Your task to perform on an android device: set default search engine in the chrome app Image 0: 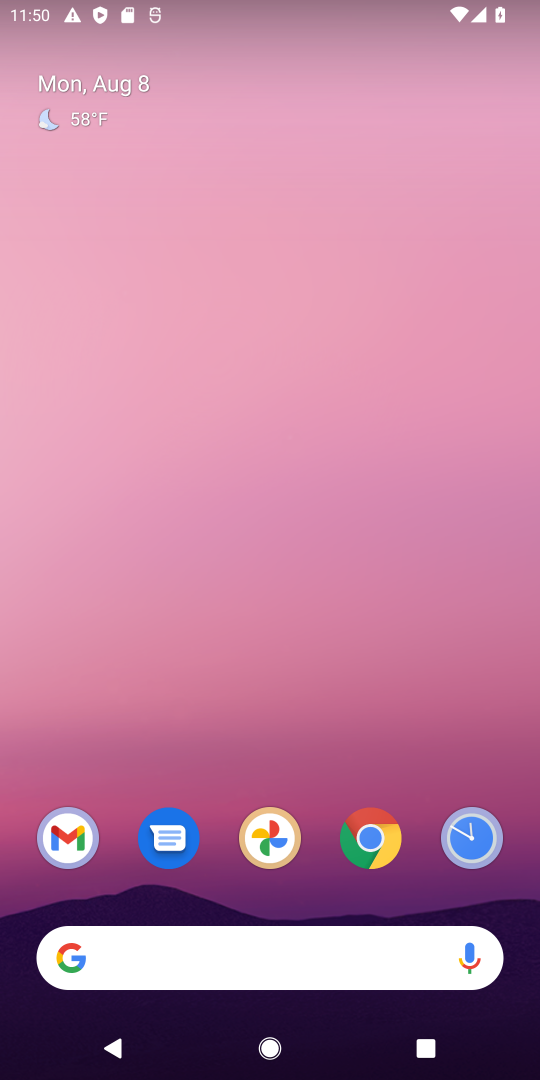
Step 0: press home button
Your task to perform on an android device: set default search engine in the chrome app Image 1: 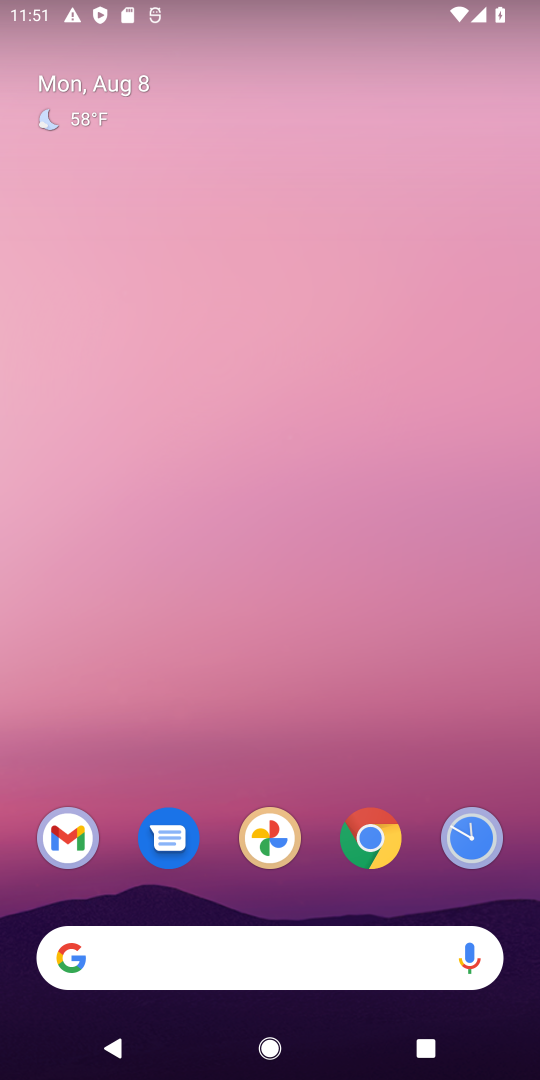
Step 1: click (369, 837)
Your task to perform on an android device: set default search engine in the chrome app Image 2: 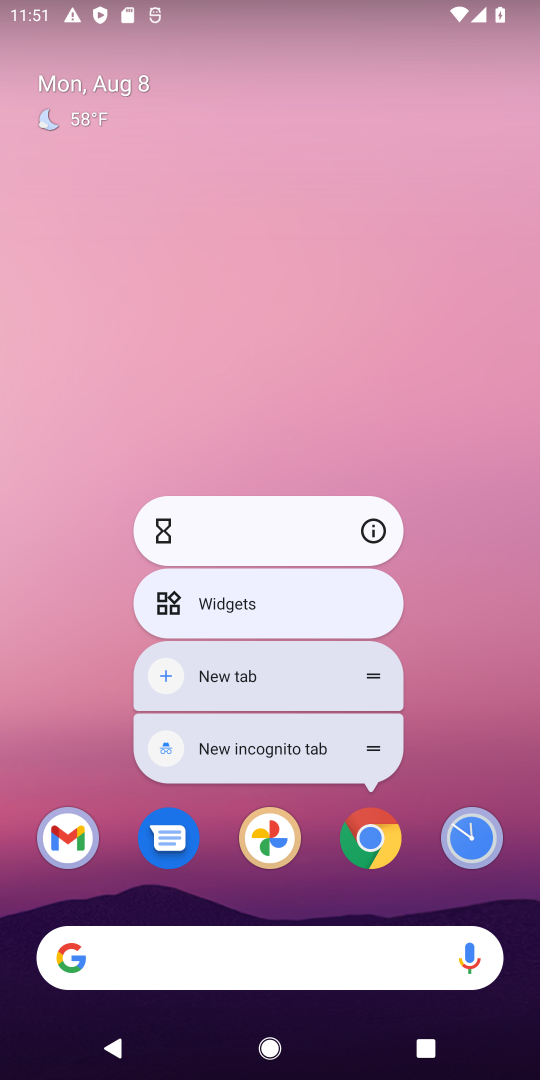
Step 2: click (369, 837)
Your task to perform on an android device: set default search engine in the chrome app Image 3: 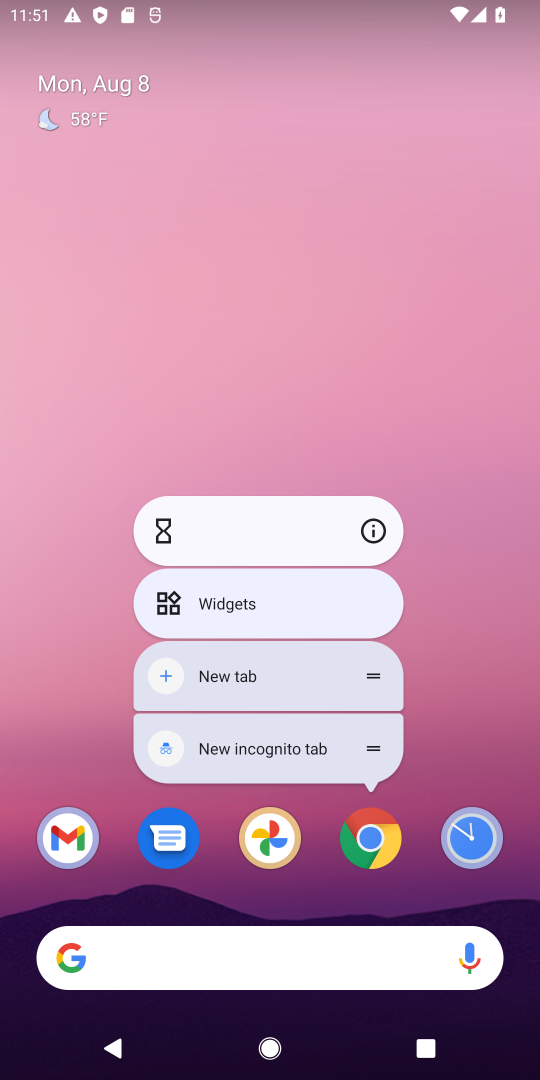
Step 3: click (369, 837)
Your task to perform on an android device: set default search engine in the chrome app Image 4: 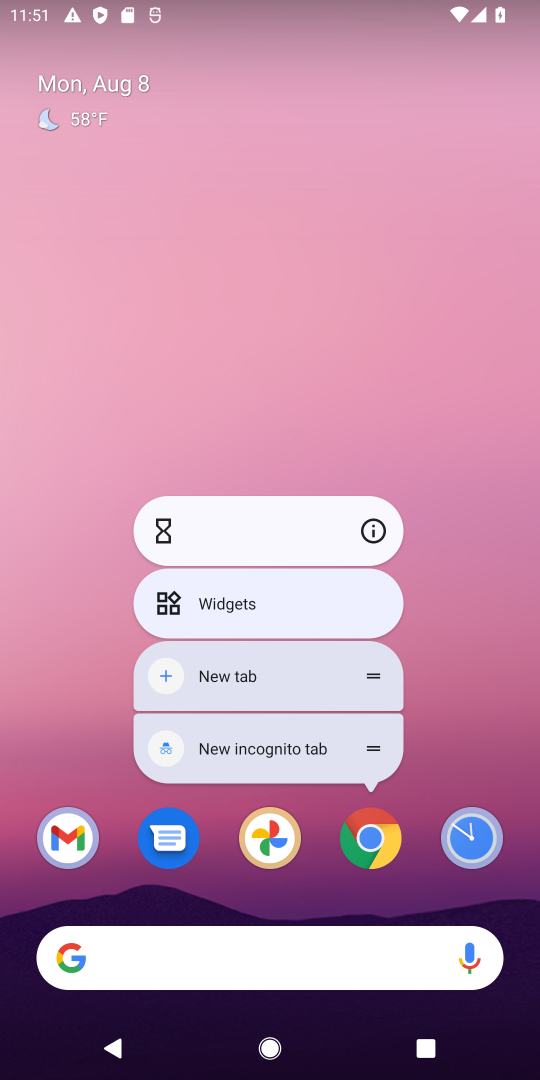
Step 4: click (369, 837)
Your task to perform on an android device: set default search engine in the chrome app Image 5: 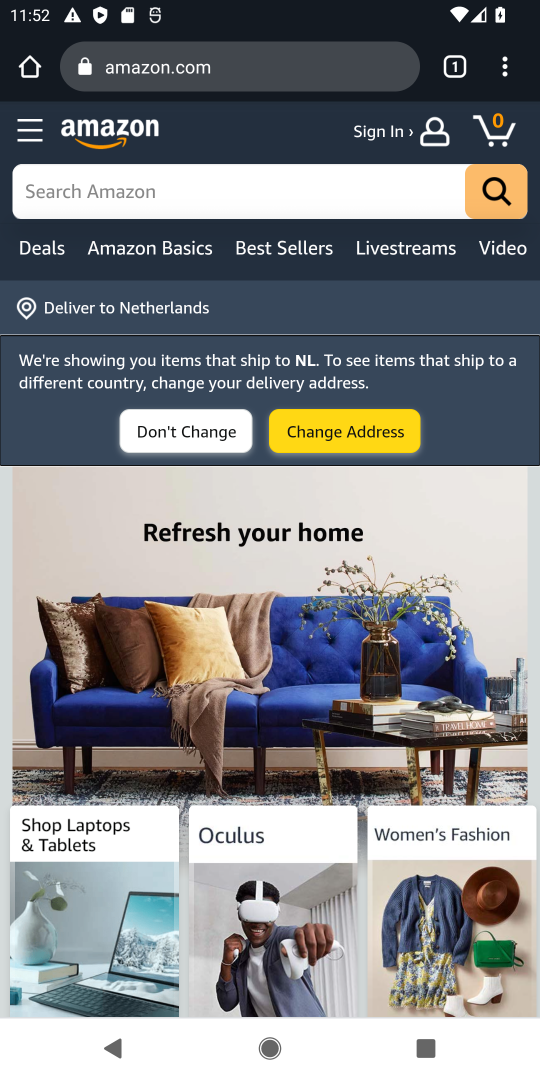
Step 5: drag from (506, 73) to (319, 851)
Your task to perform on an android device: set default search engine in the chrome app Image 6: 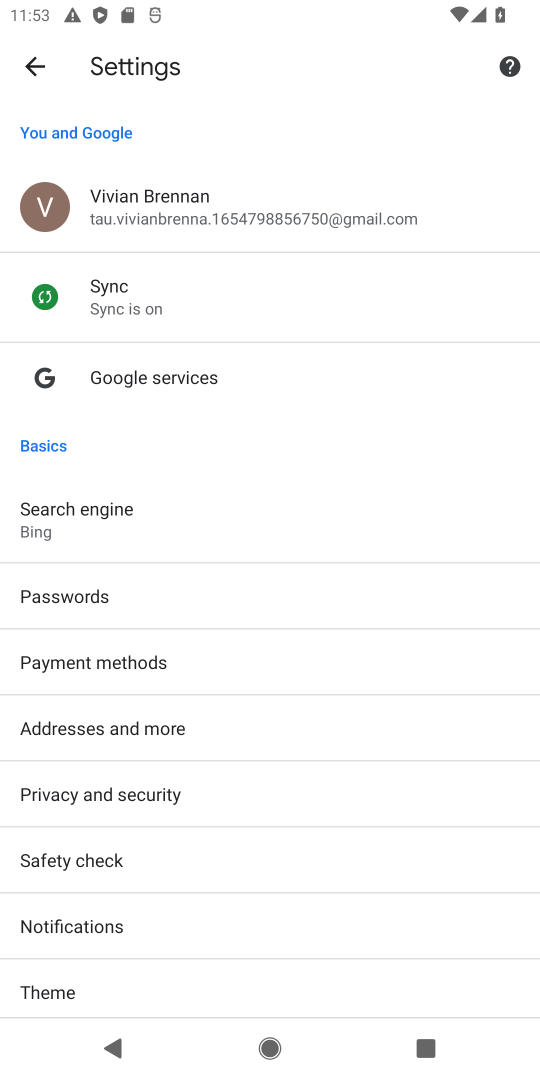
Step 6: drag from (262, 978) to (295, 331)
Your task to perform on an android device: set default search engine in the chrome app Image 7: 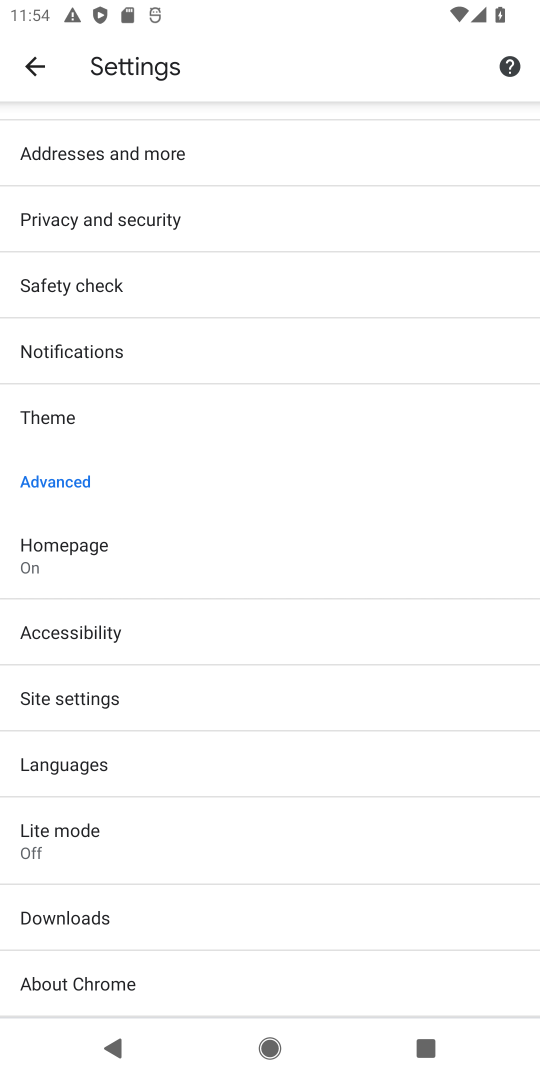
Step 7: drag from (385, 259) to (232, 1068)
Your task to perform on an android device: set default search engine in the chrome app Image 8: 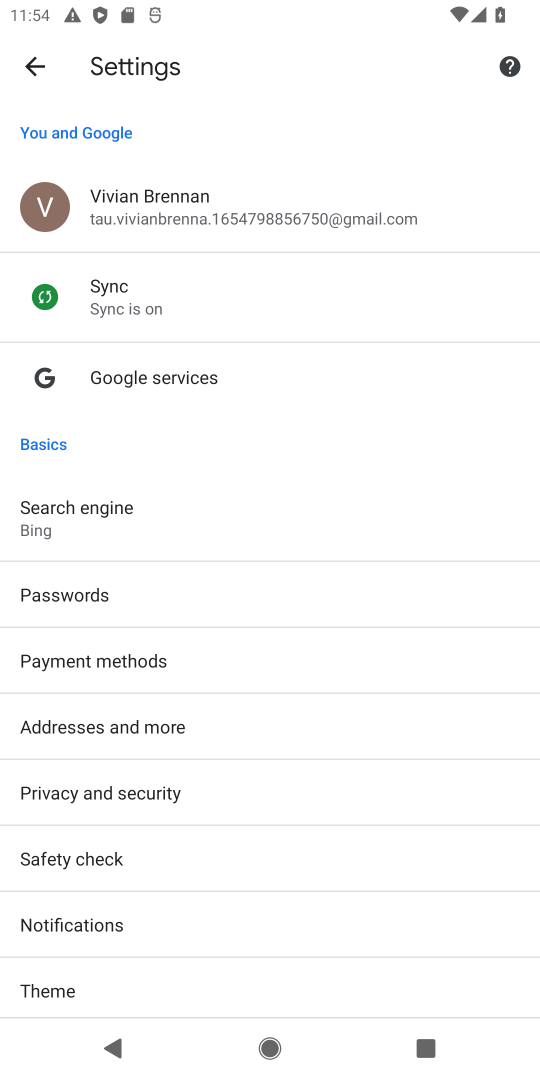
Step 8: click (59, 513)
Your task to perform on an android device: set default search engine in the chrome app Image 9: 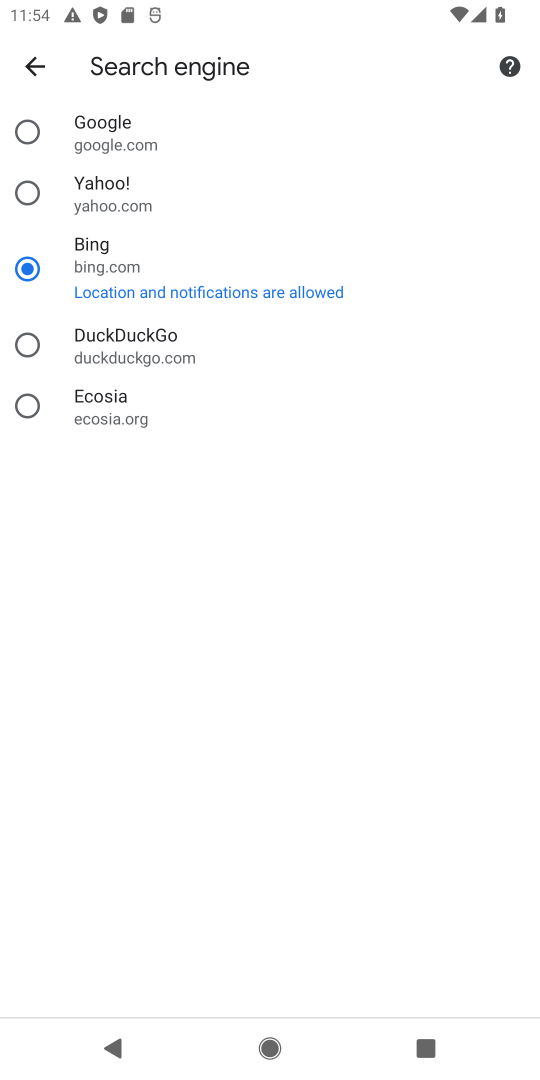
Step 9: click (31, 194)
Your task to perform on an android device: set default search engine in the chrome app Image 10: 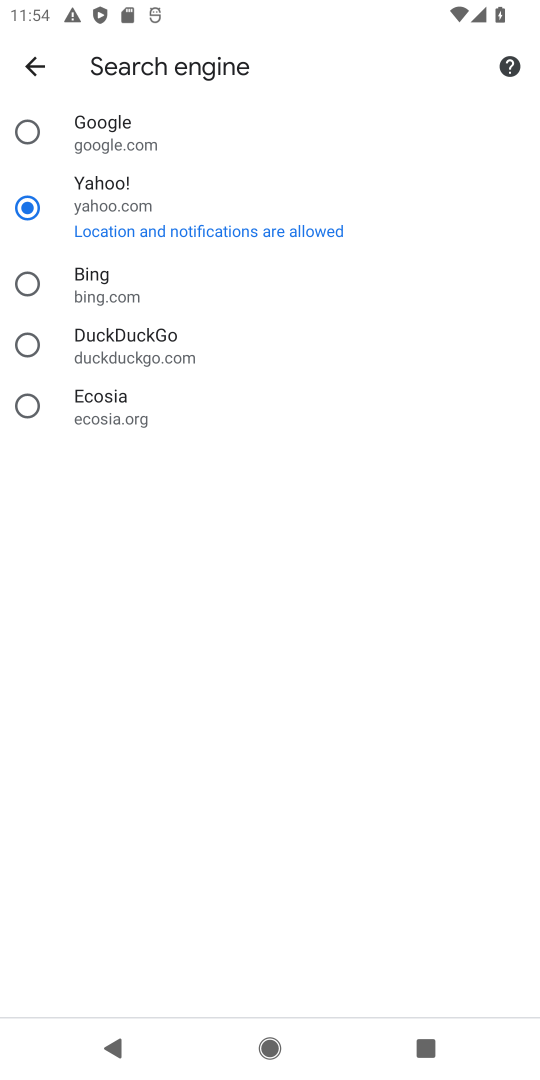
Step 10: task complete